Your task to perform on an android device: check out phone information Image 0: 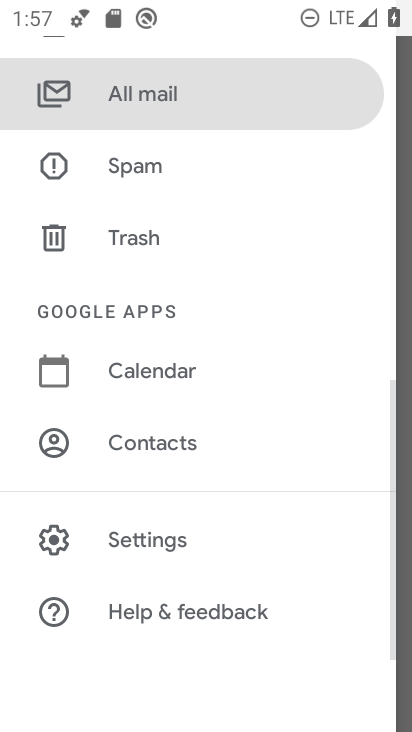
Step 0: press home button
Your task to perform on an android device: check out phone information Image 1: 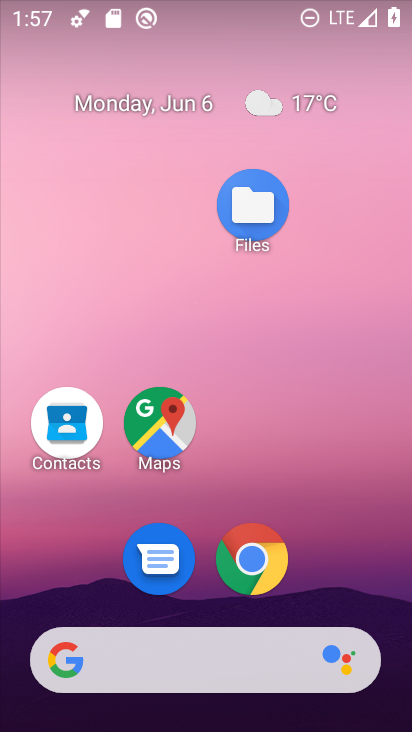
Step 1: drag from (272, 673) to (265, 274)
Your task to perform on an android device: check out phone information Image 2: 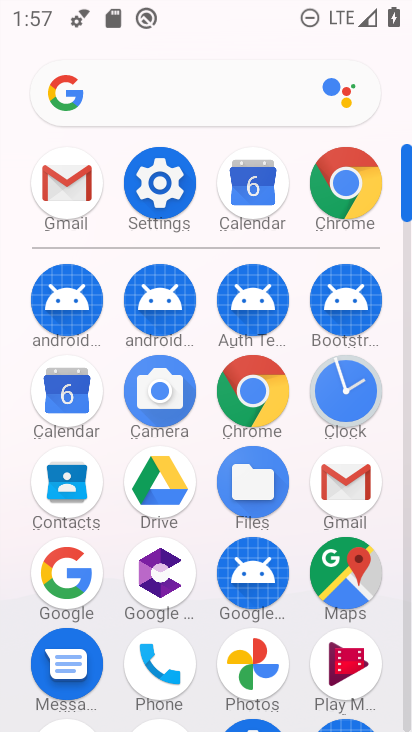
Step 2: click (152, 198)
Your task to perform on an android device: check out phone information Image 3: 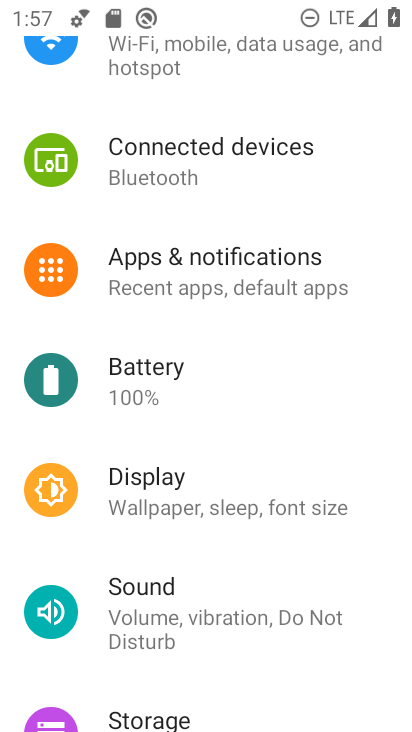
Step 3: drag from (176, 575) to (221, 239)
Your task to perform on an android device: check out phone information Image 4: 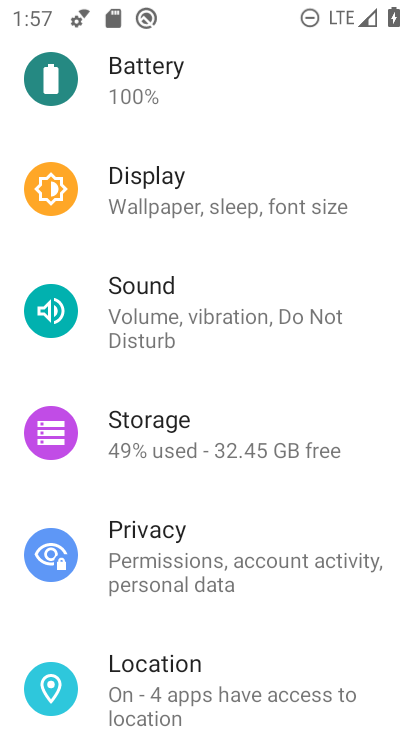
Step 4: drag from (191, 600) to (232, 298)
Your task to perform on an android device: check out phone information Image 5: 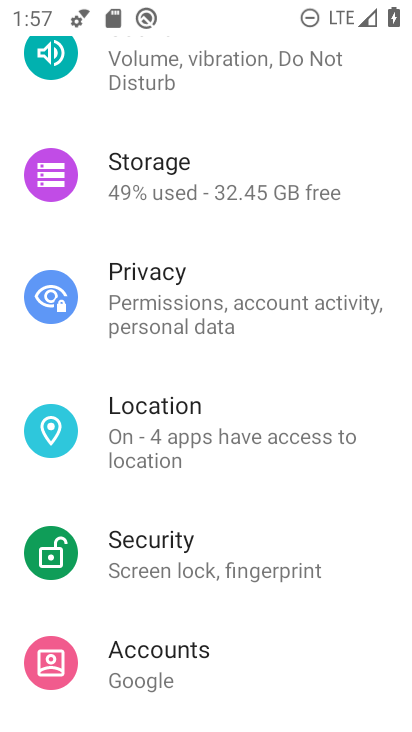
Step 5: drag from (218, 652) to (273, 356)
Your task to perform on an android device: check out phone information Image 6: 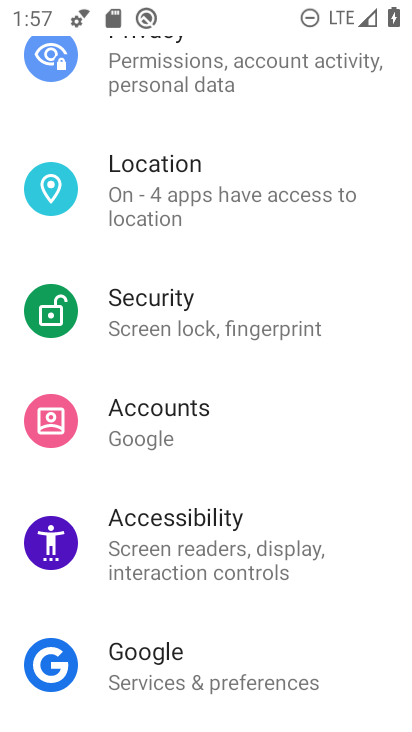
Step 6: drag from (224, 567) to (259, 344)
Your task to perform on an android device: check out phone information Image 7: 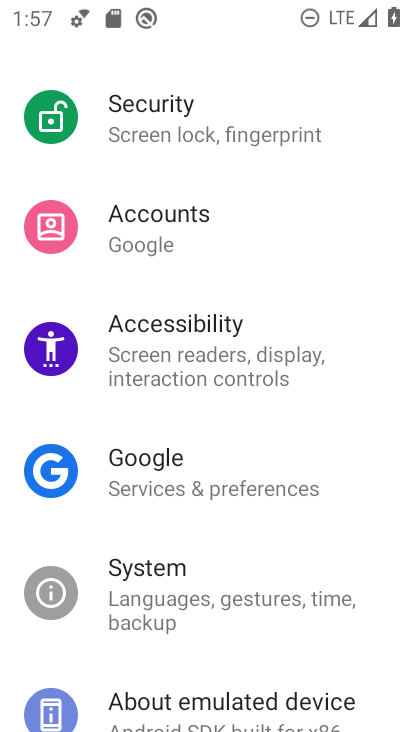
Step 7: drag from (213, 599) to (252, 386)
Your task to perform on an android device: check out phone information Image 8: 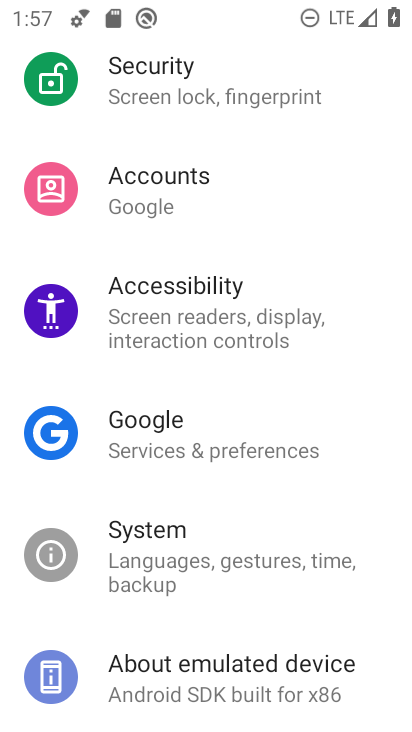
Step 8: drag from (209, 596) to (259, 337)
Your task to perform on an android device: check out phone information Image 9: 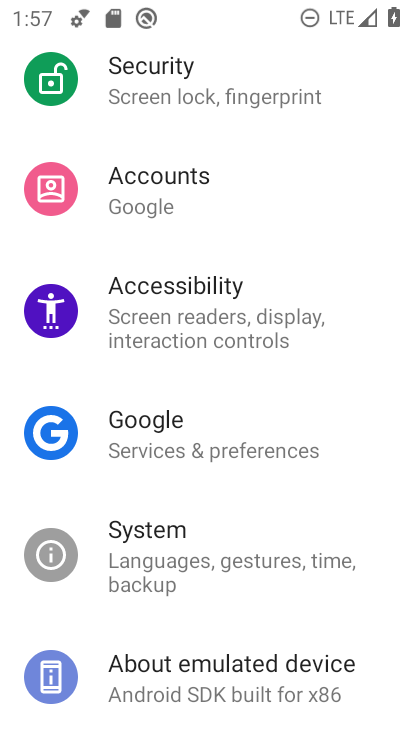
Step 9: click (204, 679)
Your task to perform on an android device: check out phone information Image 10: 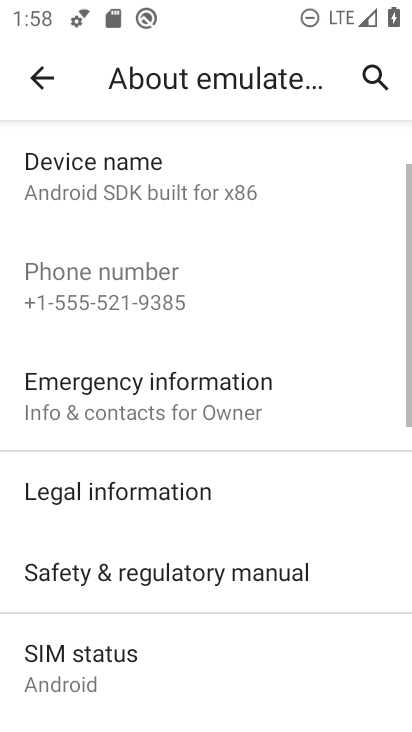
Step 10: task complete